Your task to perform on an android device: turn on sleep mode Image 0: 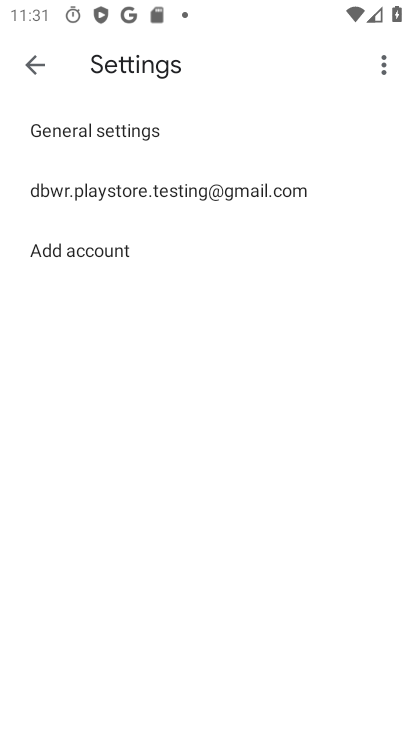
Step 0: press back button
Your task to perform on an android device: turn on sleep mode Image 1: 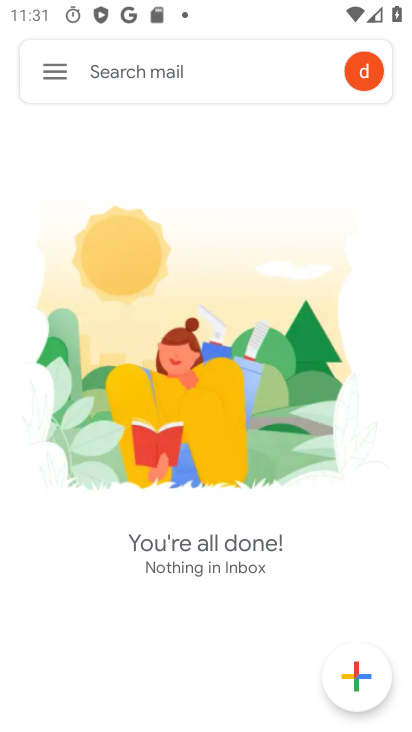
Step 1: press back button
Your task to perform on an android device: turn on sleep mode Image 2: 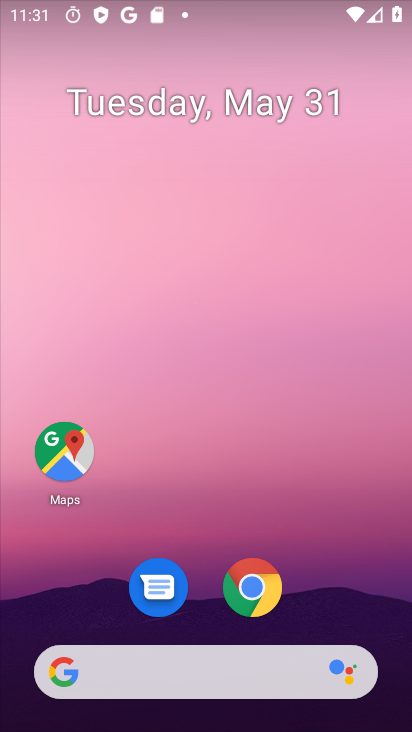
Step 2: drag from (326, 606) to (247, 51)
Your task to perform on an android device: turn on sleep mode Image 3: 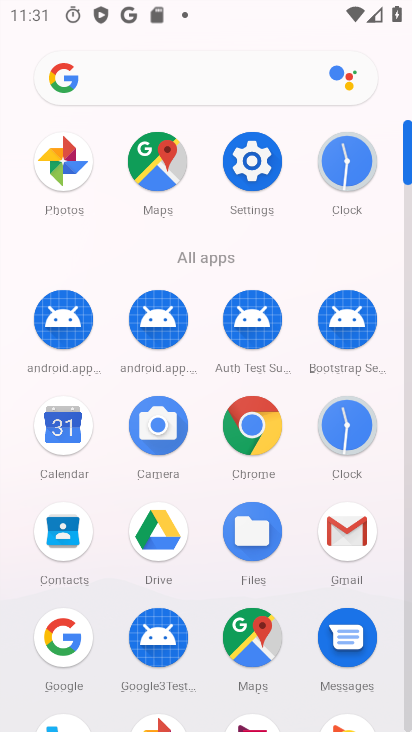
Step 3: click (249, 160)
Your task to perform on an android device: turn on sleep mode Image 4: 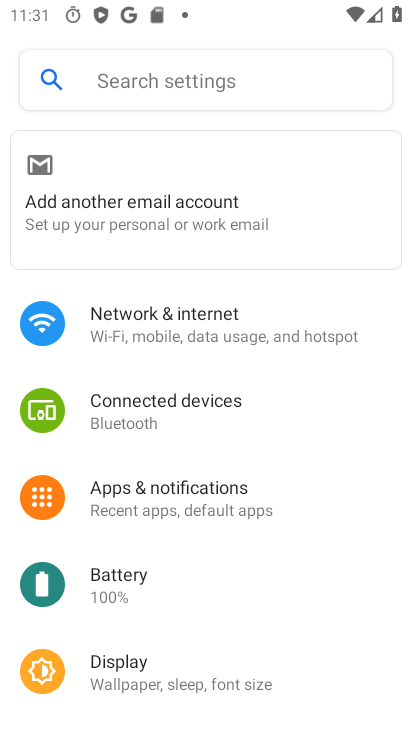
Step 4: drag from (199, 572) to (189, 468)
Your task to perform on an android device: turn on sleep mode Image 5: 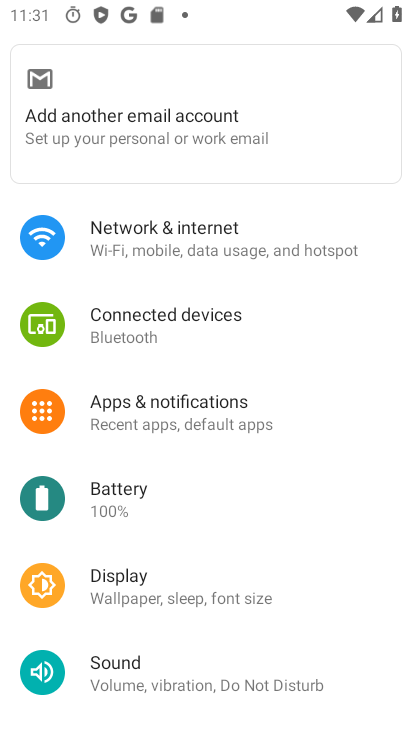
Step 5: click (196, 598)
Your task to perform on an android device: turn on sleep mode Image 6: 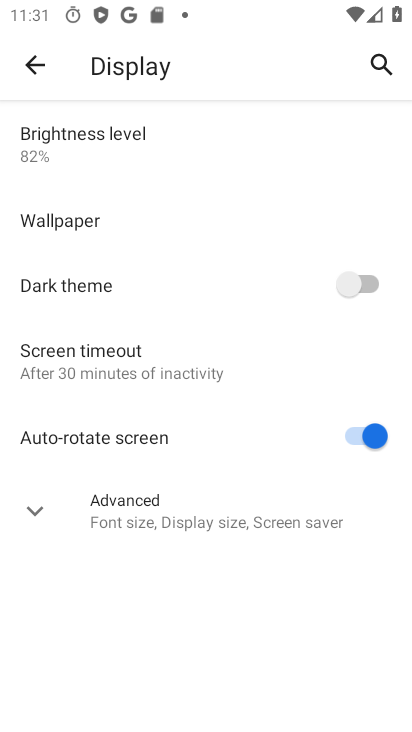
Step 6: click (179, 522)
Your task to perform on an android device: turn on sleep mode Image 7: 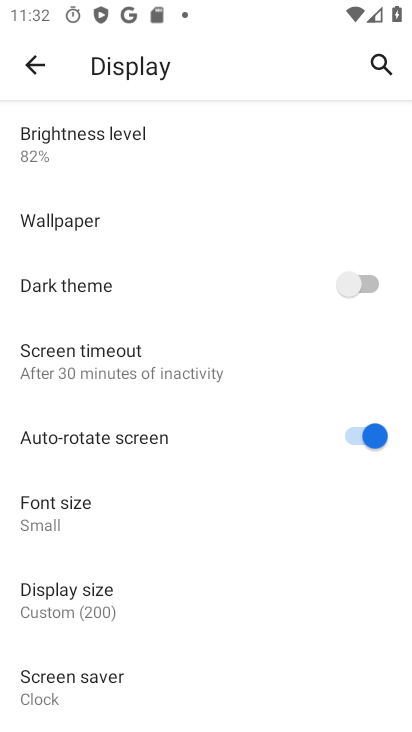
Step 7: click (90, 389)
Your task to perform on an android device: turn on sleep mode Image 8: 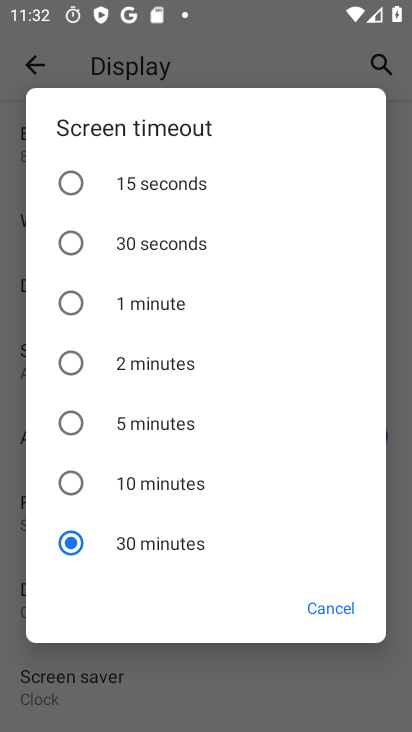
Step 8: click (339, 612)
Your task to perform on an android device: turn on sleep mode Image 9: 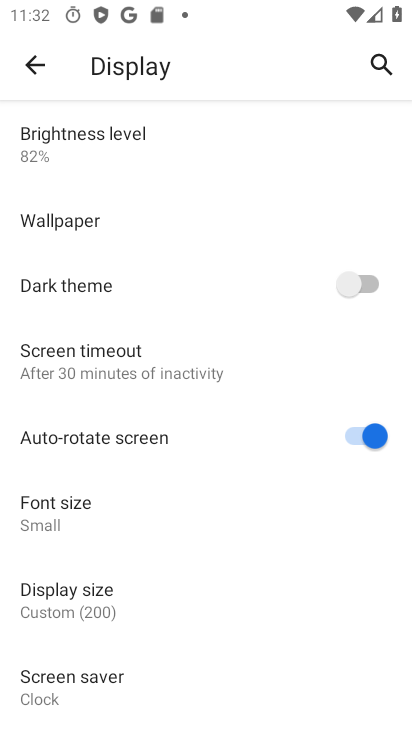
Step 9: task complete